Your task to perform on an android device: Play some music on YouTube Image 0: 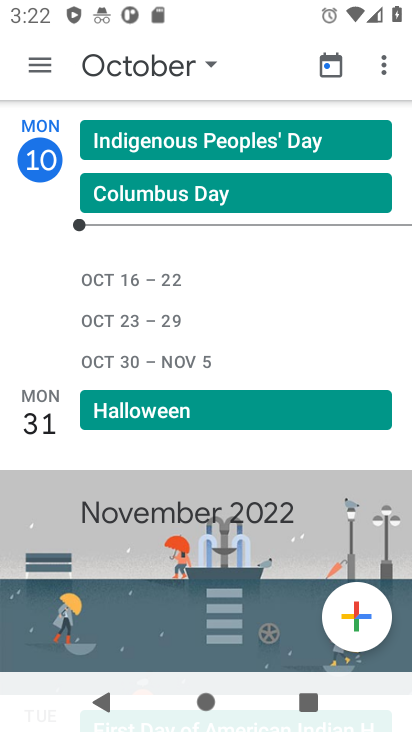
Step 0: press home button
Your task to perform on an android device: Play some music on YouTube Image 1: 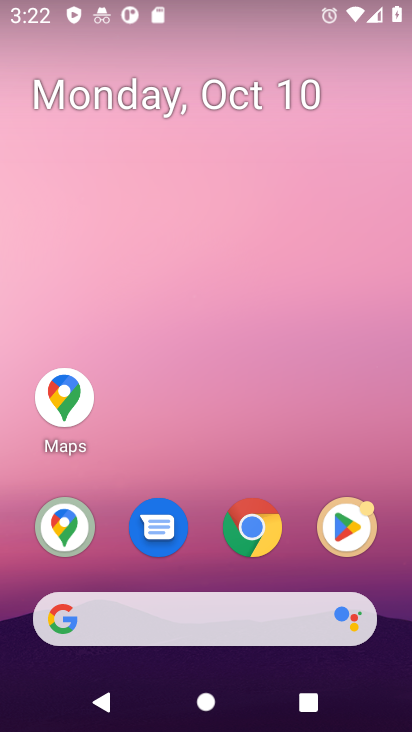
Step 1: drag from (208, 622) to (218, 142)
Your task to perform on an android device: Play some music on YouTube Image 2: 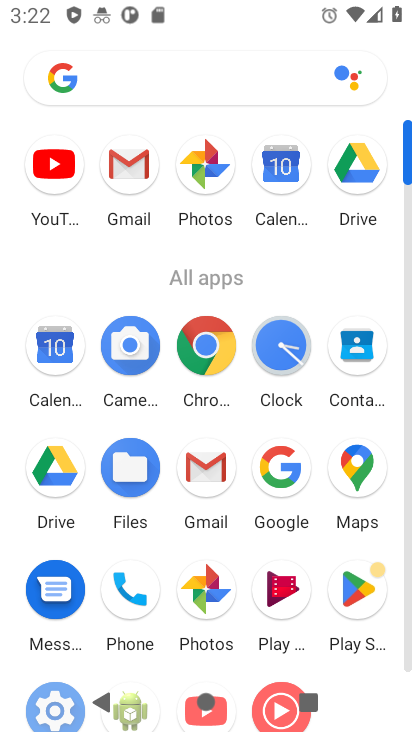
Step 2: click (62, 167)
Your task to perform on an android device: Play some music on YouTube Image 3: 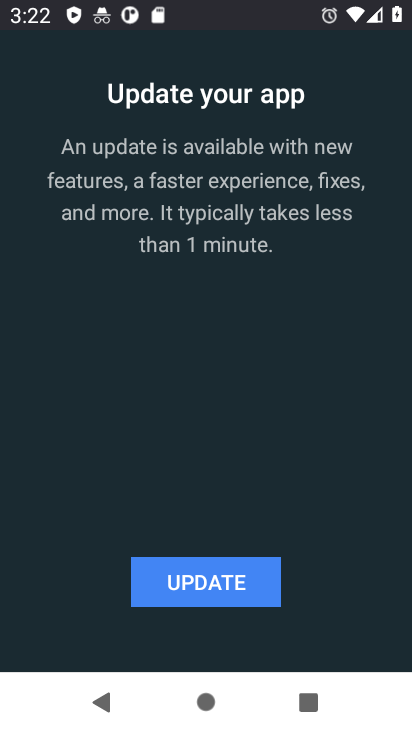
Step 3: click (220, 590)
Your task to perform on an android device: Play some music on YouTube Image 4: 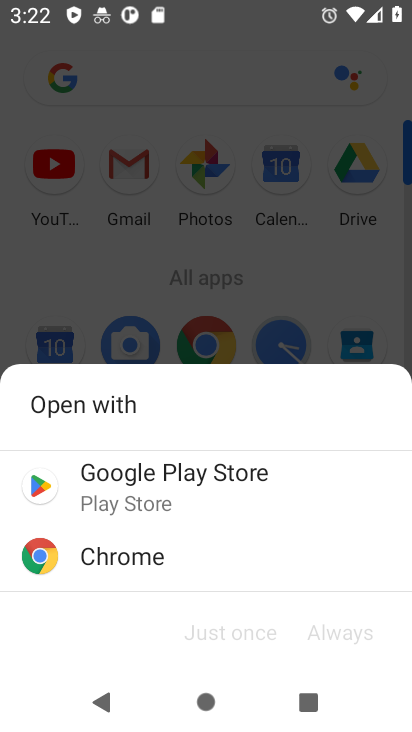
Step 4: click (177, 485)
Your task to perform on an android device: Play some music on YouTube Image 5: 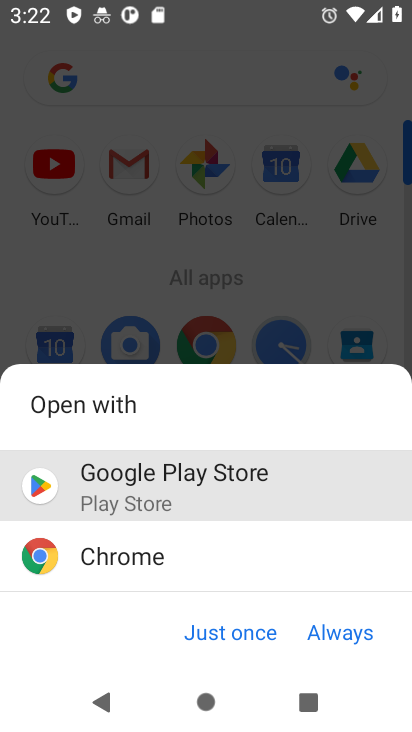
Step 5: click (254, 628)
Your task to perform on an android device: Play some music on YouTube Image 6: 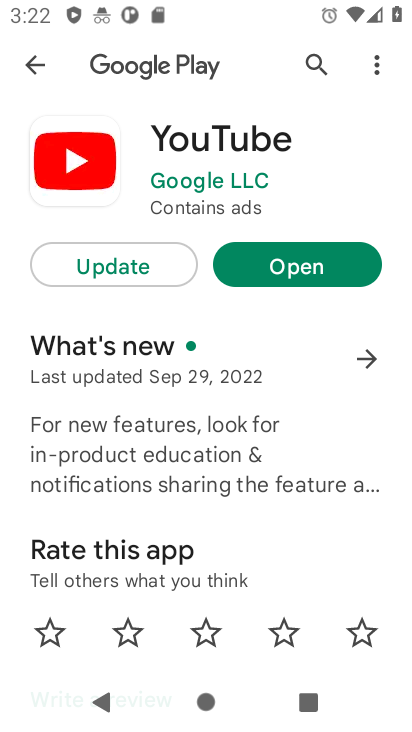
Step 6: click (266, 275)
Your task to perform on an android device: Play some music on YouTube Image 7: 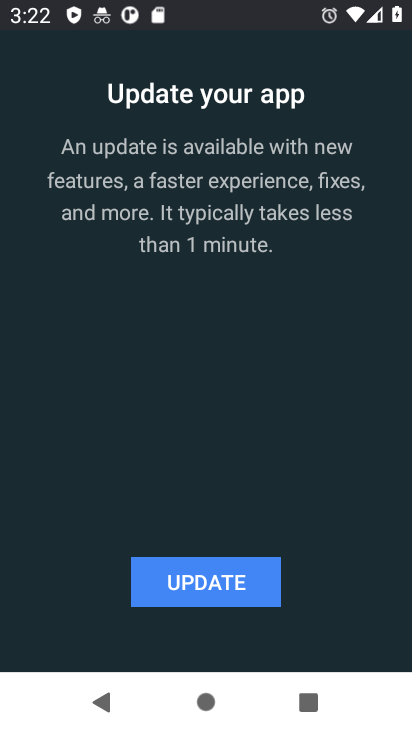
Step 7: click (217, 584)
Your task to perform on an android device: Play some music on YouTube Image 8: 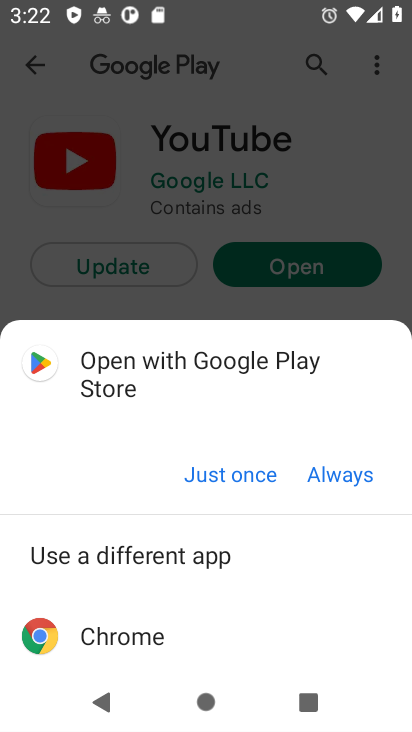
Step 8: click (227, 473)
Your task to perform on an android device: Play some music on YouTube Image 9: 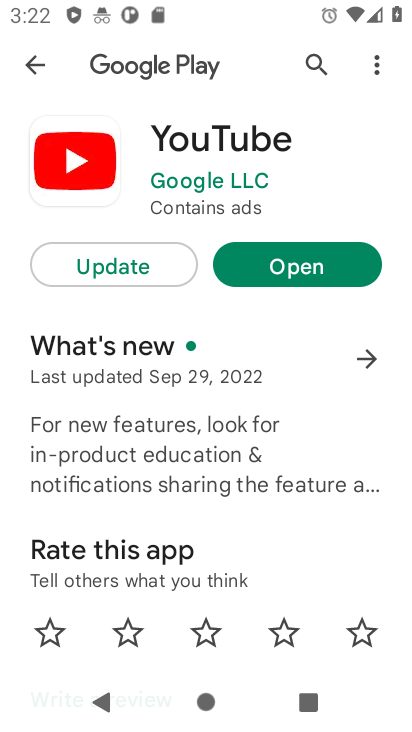
Step 9: click (133, 259)
Your task to perform on an android device: Play some music on YouTube Image 10: 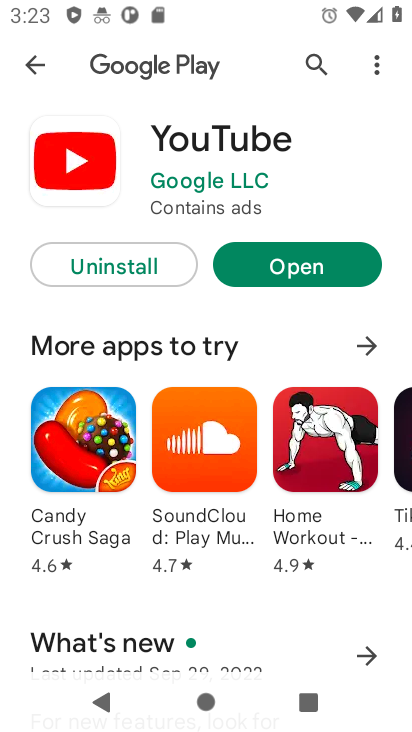
Step 10: click (298, 258)
Your task to perform on an android device: Play some music on YouTube Image 11: 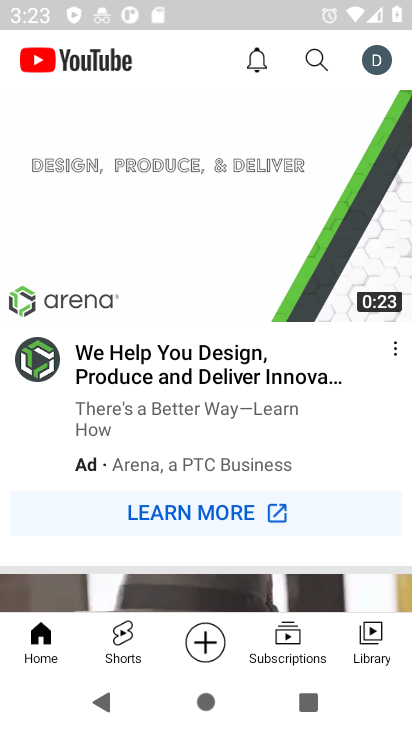
Step 11: click (319, 64)
Your task to perform on an android device: Play some music on YouTube Image 12: 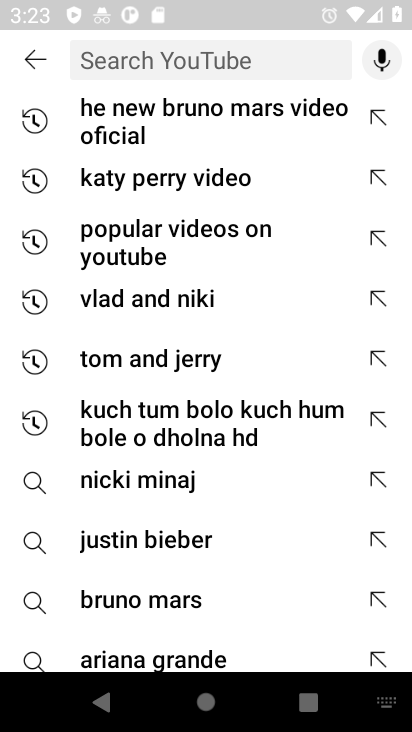
Step 12: type "music"
Your task to perform on an android device: Play some music on YouTube Image 13: 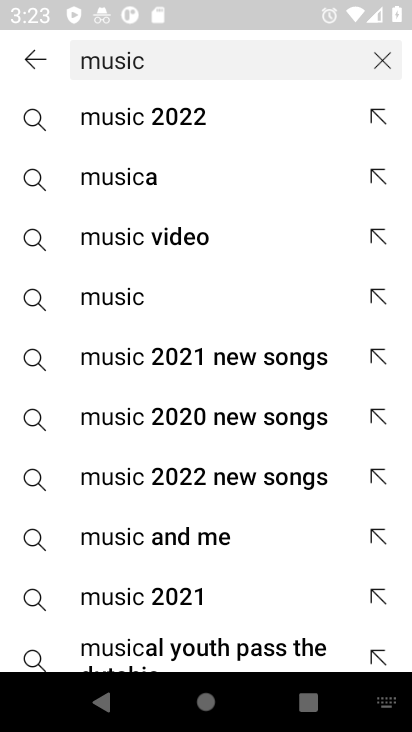
Step 13: click (161, 111)
Your task to perform on an android device: Play some music on YouTube Image 14: 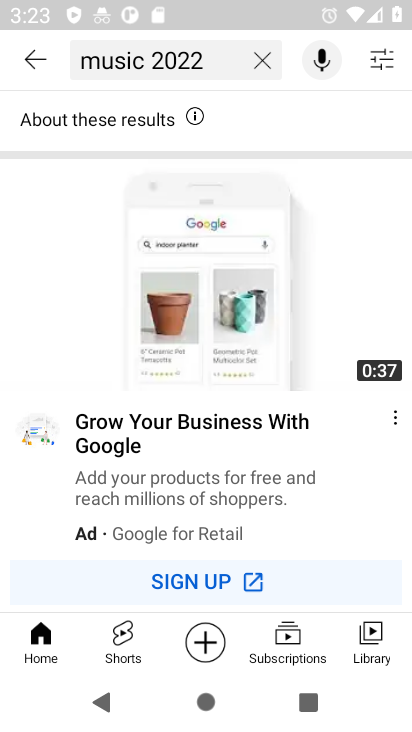
Step 14: drag from (208, 524) to (335, 287)
Your task to perform on an android device: Play some music on YouTube Image 15: 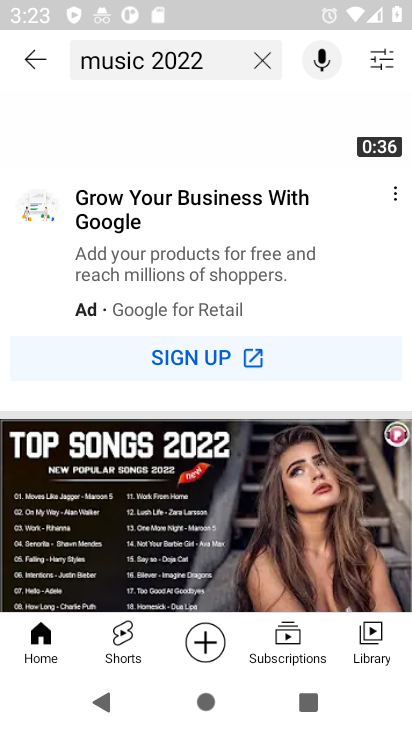
Step 15: drag from (193, 572) to (299, 379)
Your task to perform on an android device: Play some music on YouTube Image 16: 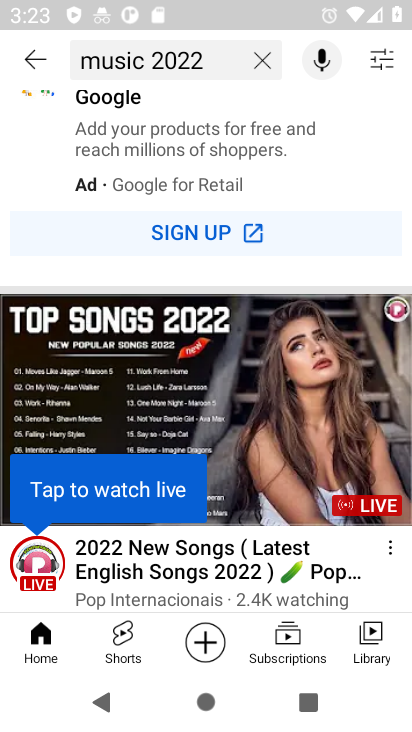
Step 16: click (277, 430)
Your task to perform on an android device: Play some music on YouTube Image 17: 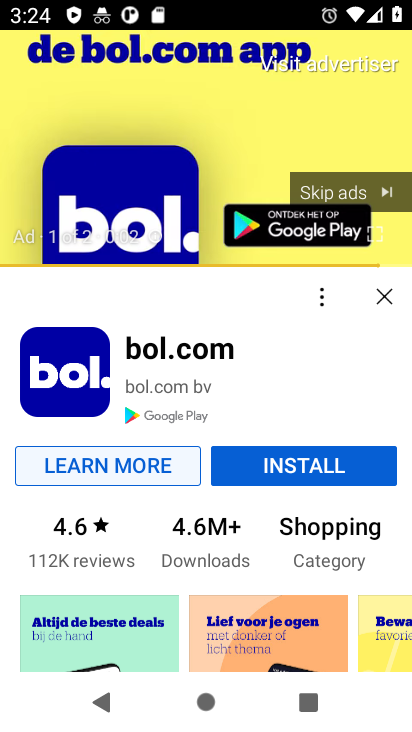
Step 17: click (348, 196)
Your task to perform on an android device: Play some music on YouTube Image 18: 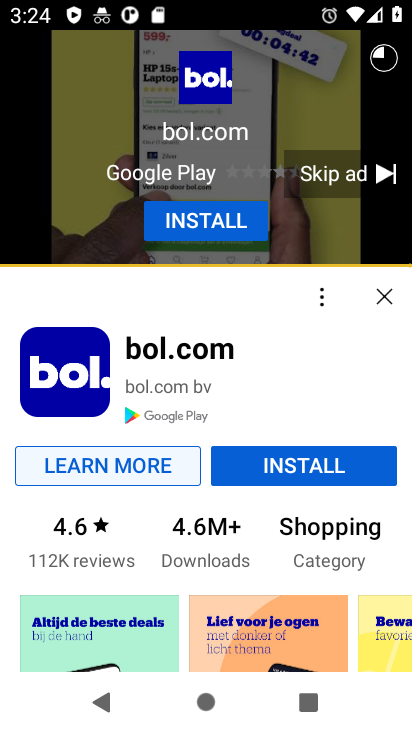
Step 18: click (348, 176)
Your task to perform on an android device: Play some music on YouTube Image 19: 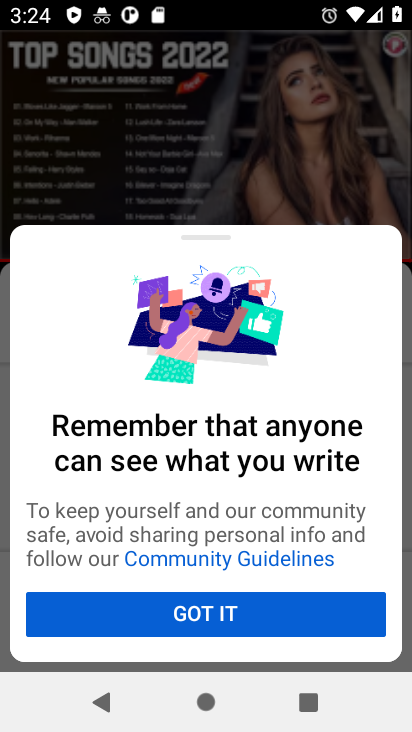
Step 19: click (216, 614)
Your task to perform on an android device: Play some music on YouTube Image 20: 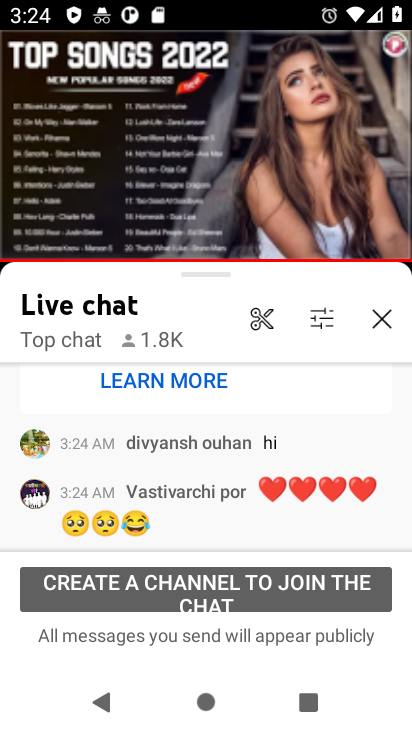
Step 20: click (198, 148)
Your task to perform on an android device: Play some music on YouTube Image 21: 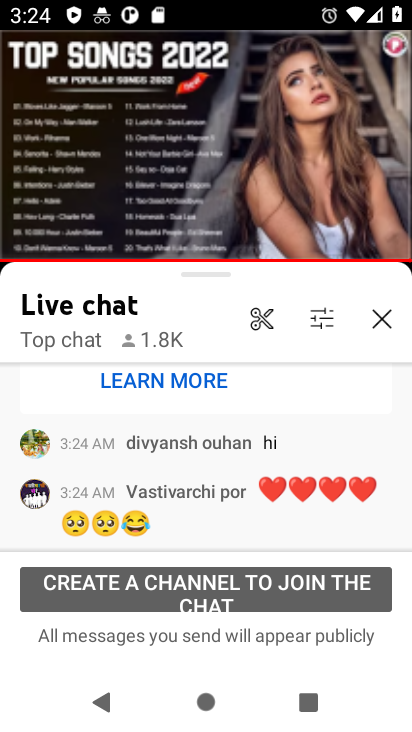
Step 21: task complete